Your task to perform on an android device: install app "Walmart Shopping & Grocery" Image 0: 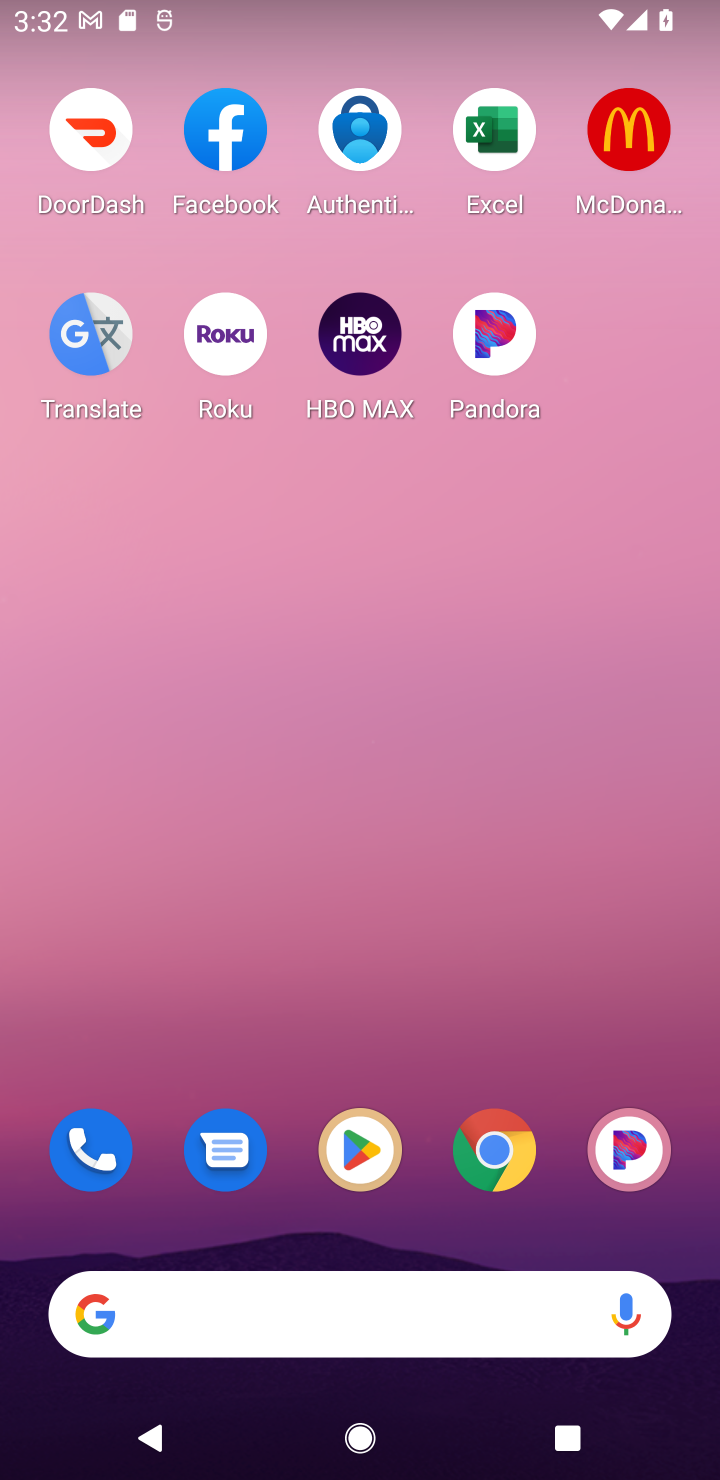
Step 0: click (358, 1148)
Your task to perform on an android device: install app "Walmart Shopping & Grocery" Image 1: 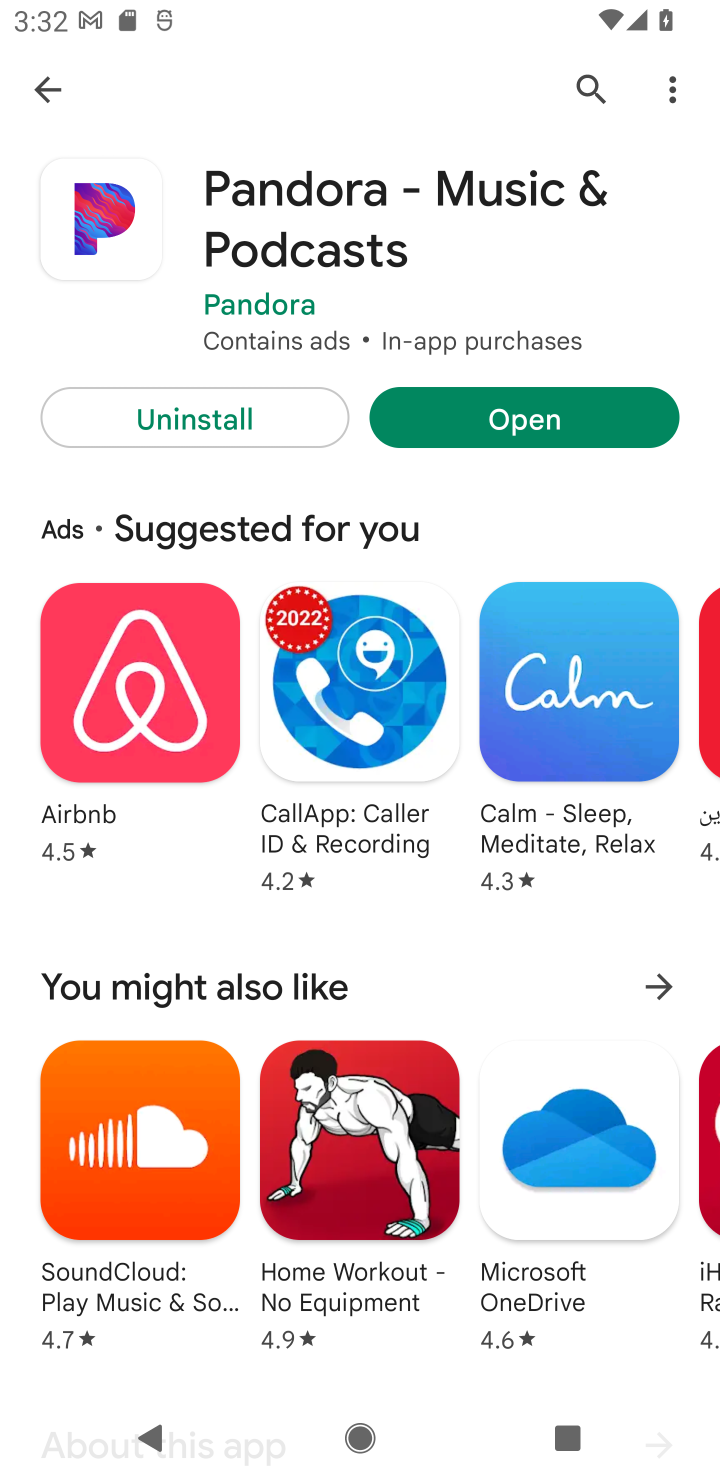
Step 1: click (592, 79)
Your task to perform on an android device: install app "Walmart Shopping & Grocery" Image 2: 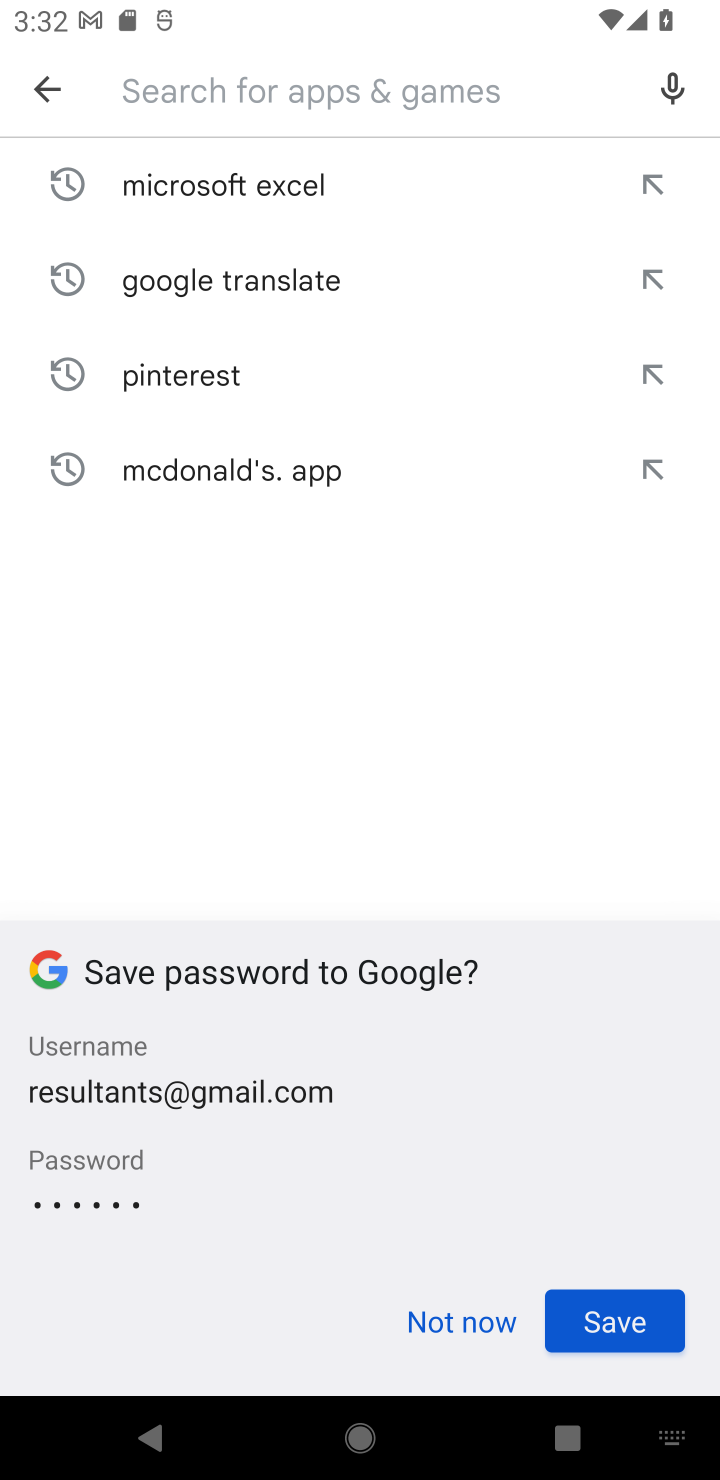
Step 2: type "Walmart Shopping & Grocery"
Your task to perform on an android device: install app "Walmart Shopping & Grocery" Image 3: 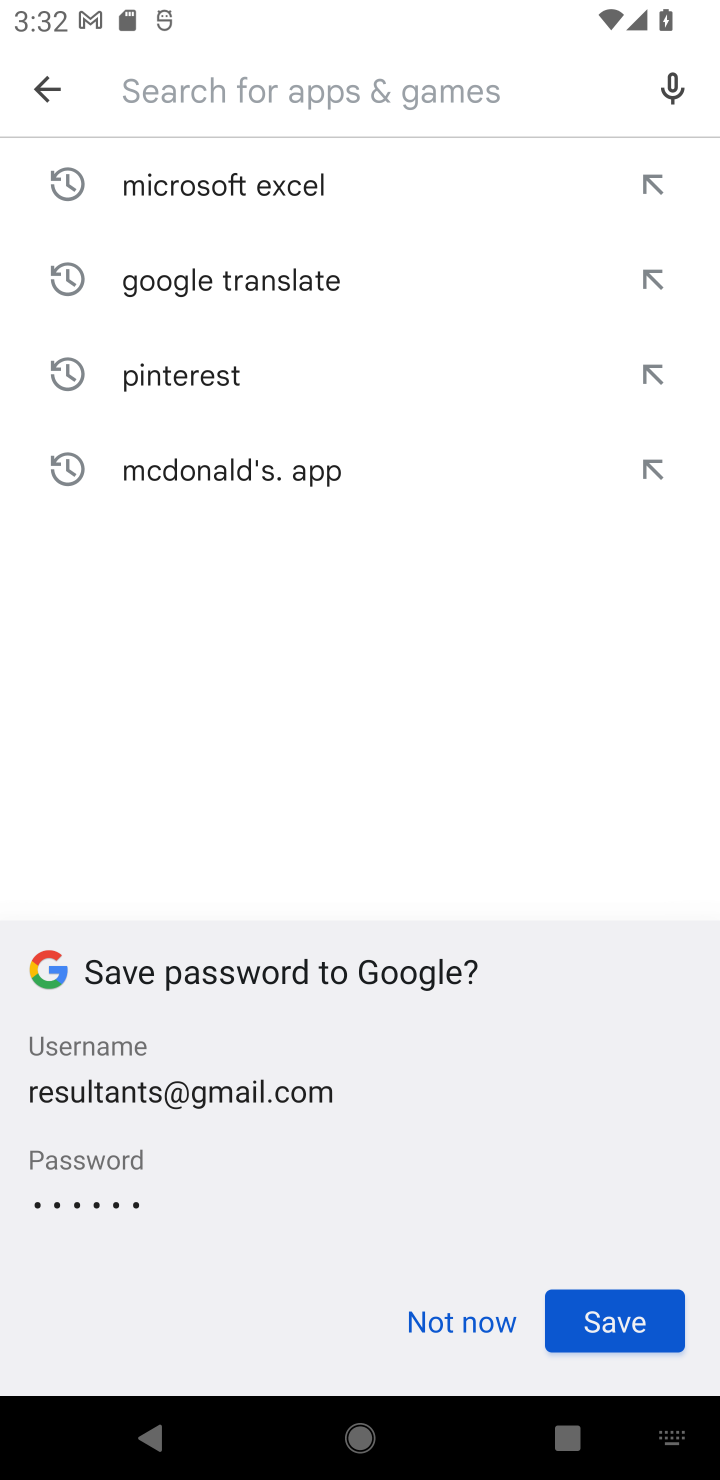
Step 3: click (198, 91)
Your task to perform on an android device: install app "Walmart Shopping & Grocery" Image 4: 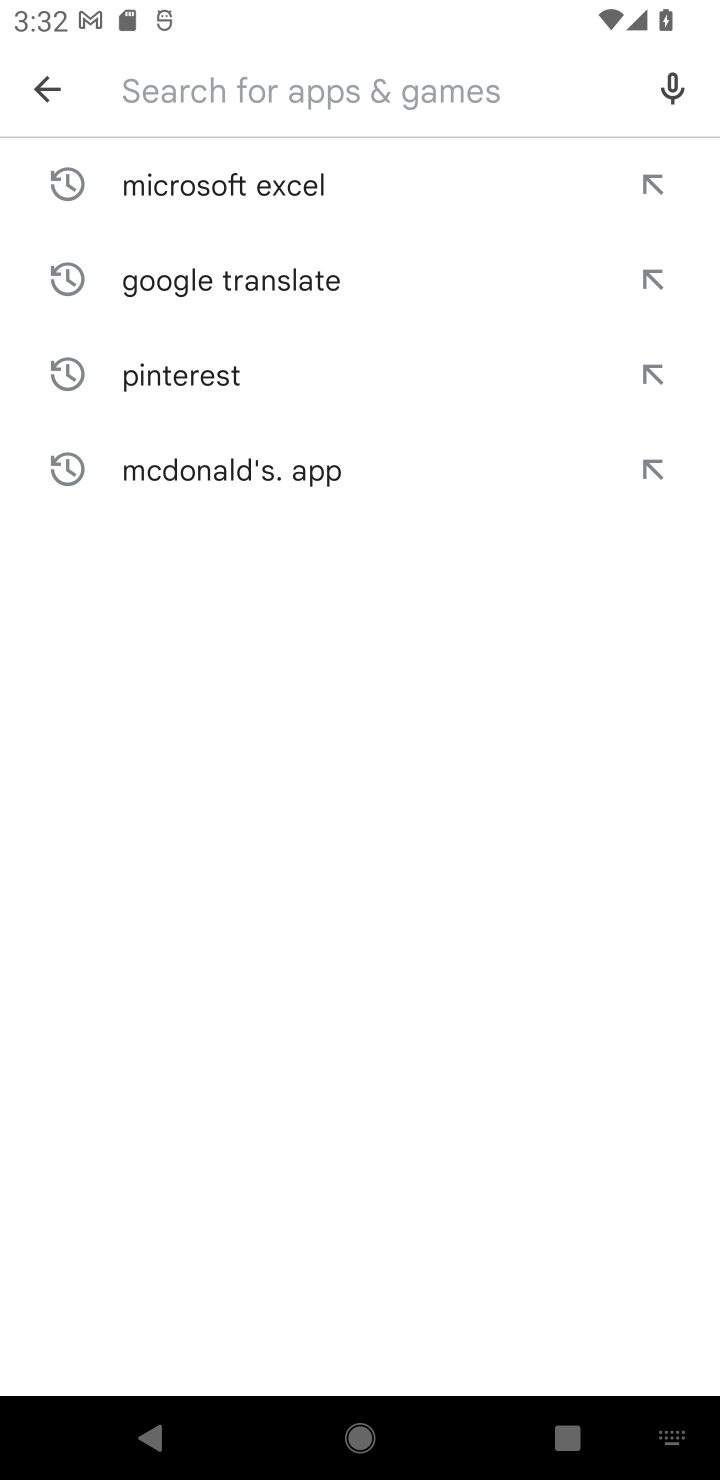
Step 4: click (198, 91)
Your task to perform on an android device: install app "Walmart Shopping & Grocery" Image 5: 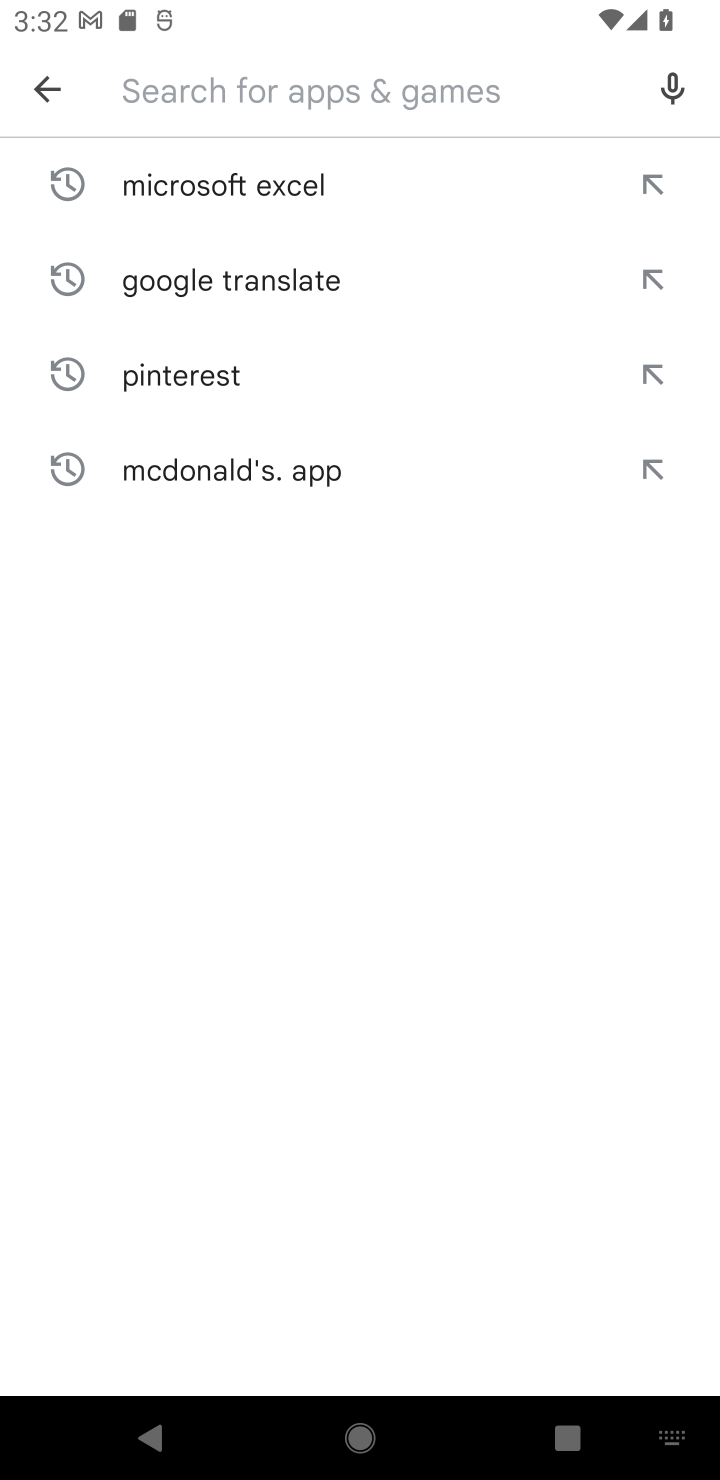
Step 5: type "Walmart Shopping & Grocery"
Your task to perform on an android device: install app "Walmart Shopping & Grocery" Image 6: 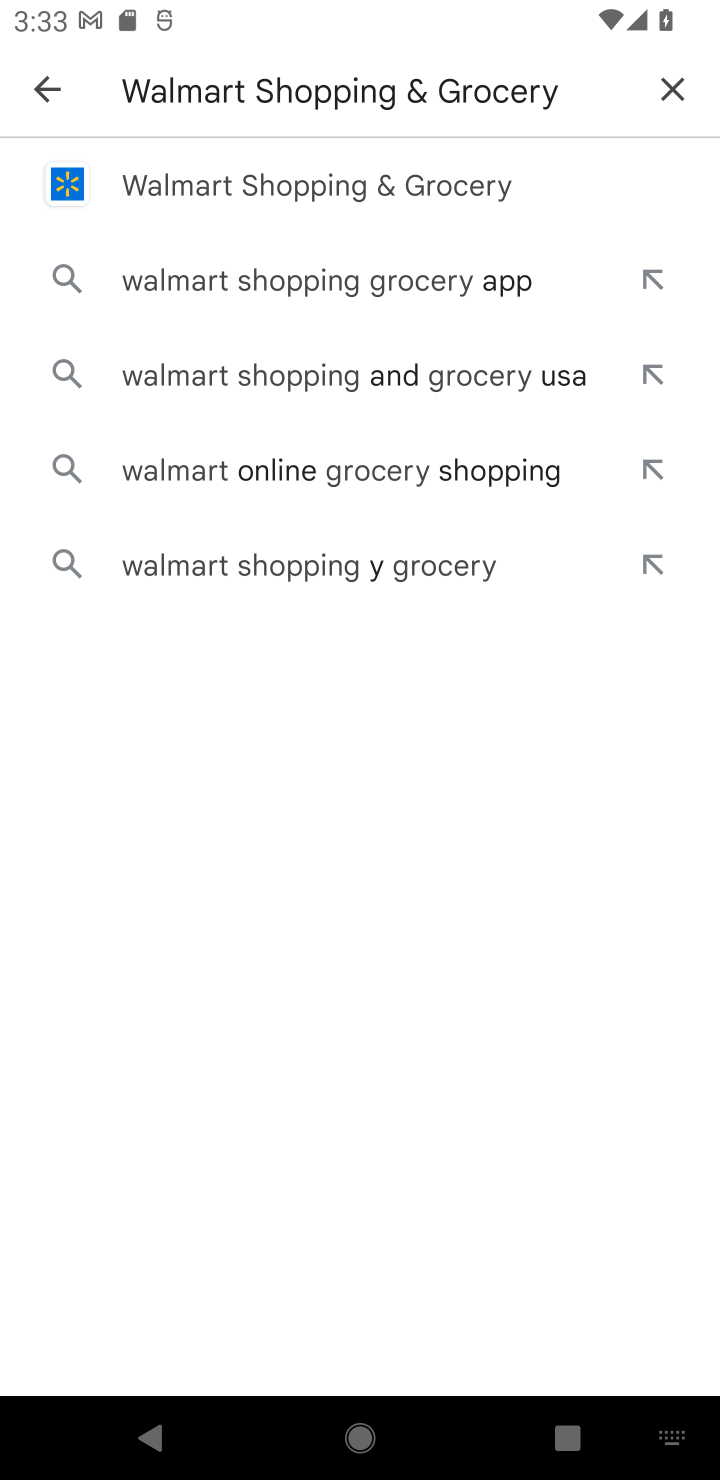
Step 6: click (181, 199)
Your task to perform on an android device: install app "Walmart Shopping & Grocery" Image 7: 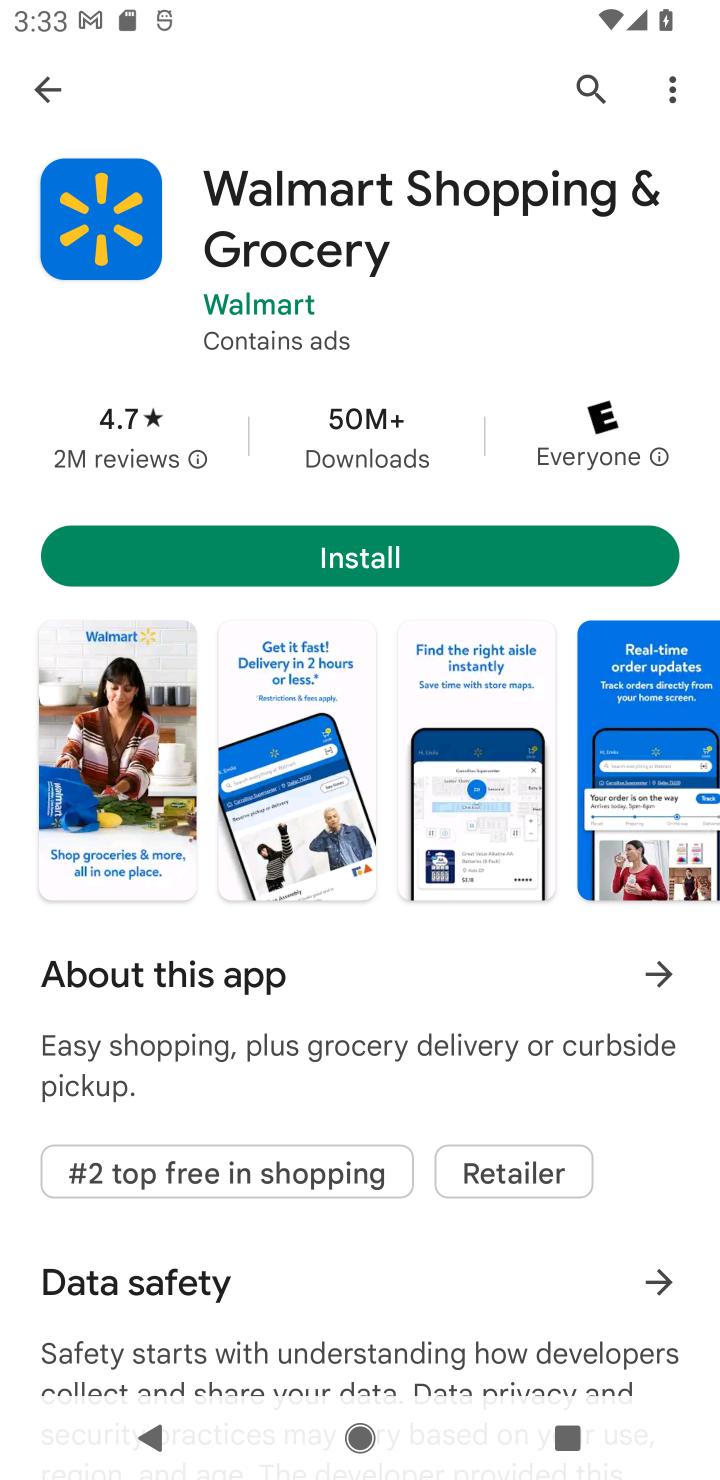
Step 7: click (358, 546)
Your task to perform on an android device: install app "Walmart Shopping & Grocery" Image 8: 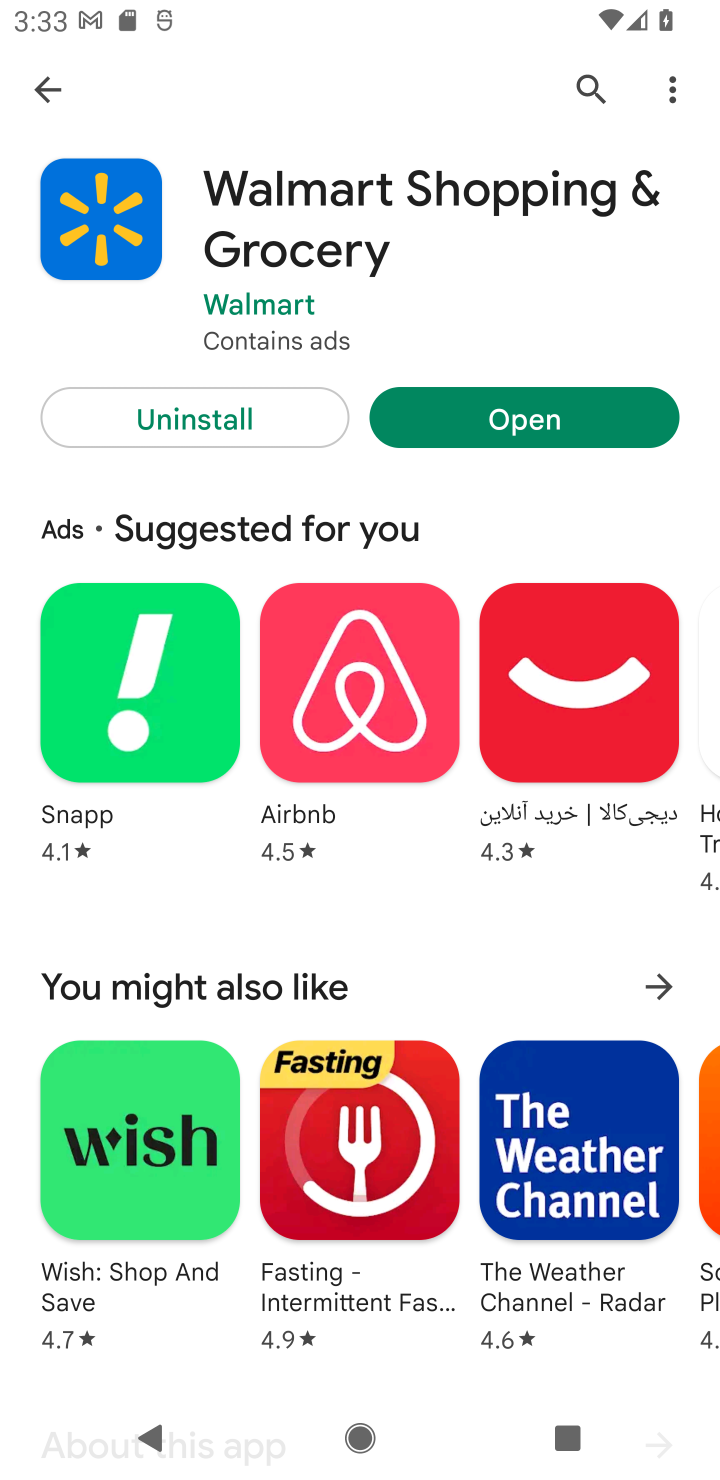
Step 8: task complete